Your task to perform on an android device: Do I have any events tomorrow? Image 0: 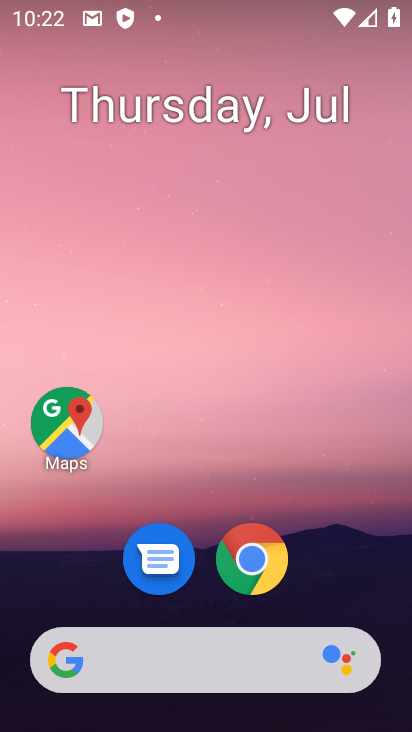
Step 0: drag from (154, 443) to (175, 10)
Your task to perform on an android device: Do I have any events tomorrow? Image 1: 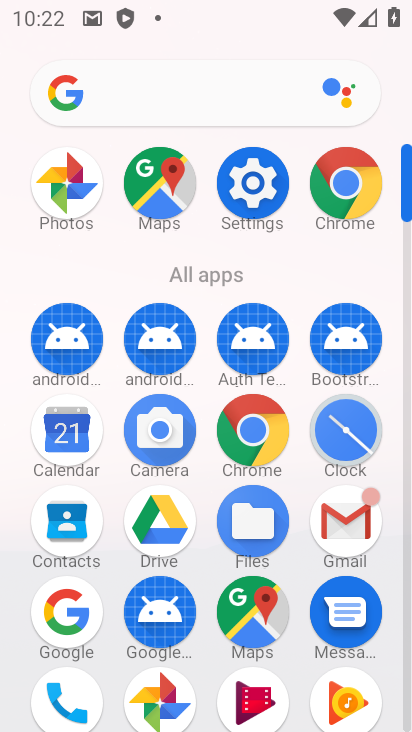
Step 1: click (74, 423)
Your task to perform on an android device: Do I have any events tomorrow? Image 2: 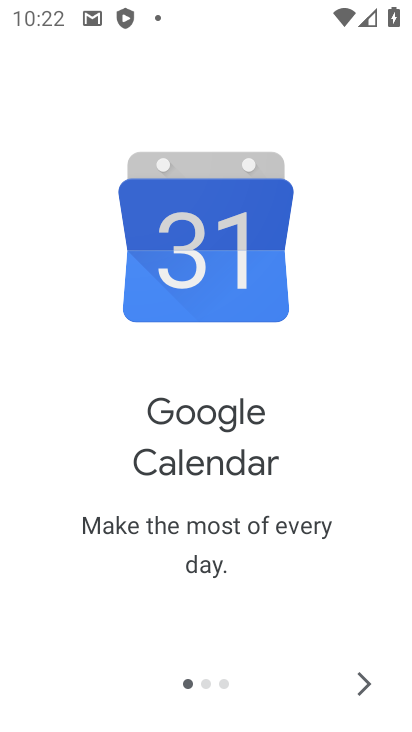
Step 2: click (361, 684)
Your task to perform on an android device: Do I have any events tomorrow? Image 3: 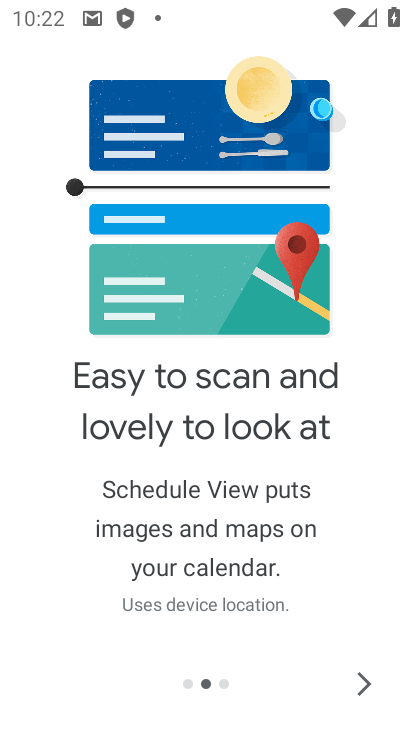
Step 3: click (361, 684)
Your task to perform on an android device: Do I have any events tomorrow? Image 4: 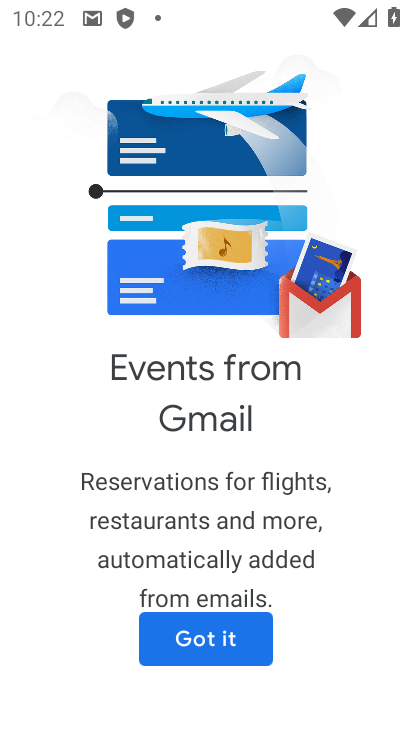
Step 4: click (225, 642)
Your task to perform on an android device: Do I have any events tomorrow? Image 5: 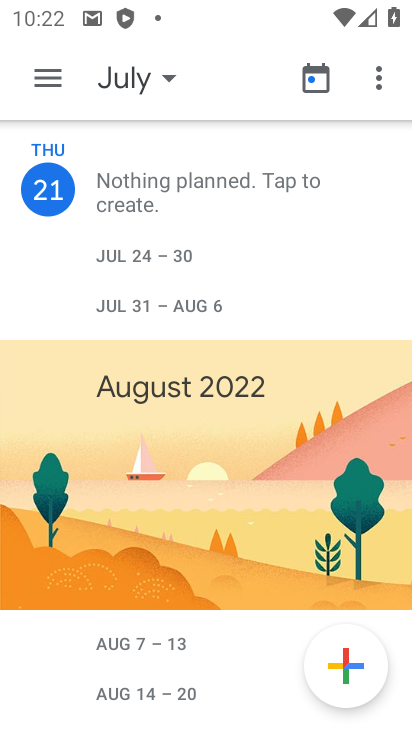
Step 5: click (157, 83)
Your task to perform on an android device: Do I have any events tomorrow? Image 6: 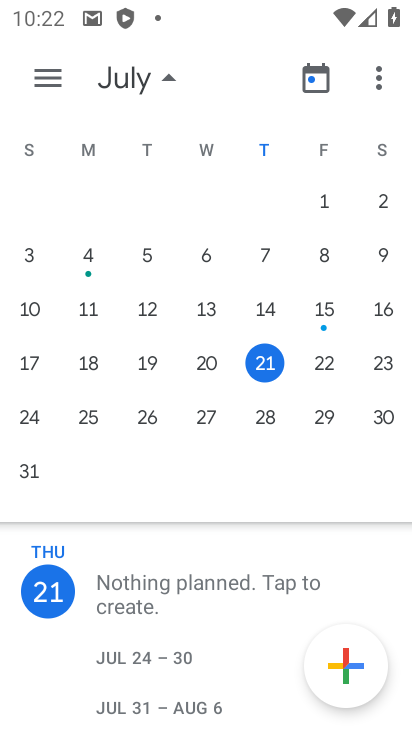
Step 6: click (317, 361)
Your task to perform on an android device: Do I have any events tomorrow? Image 7: 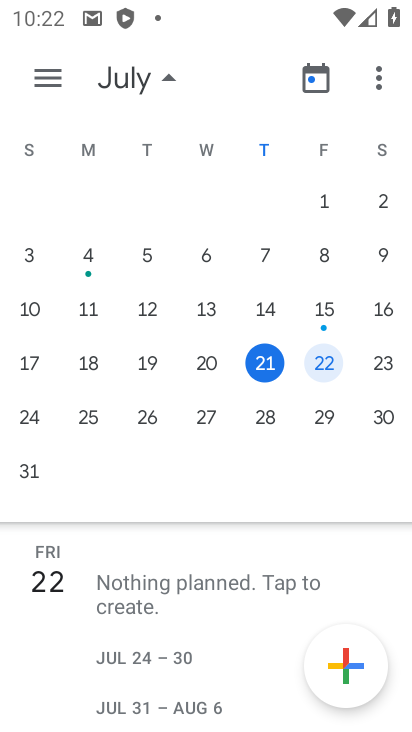
Step 7: task complete